Your task to perform on an android device: turn on wifi Image 0: 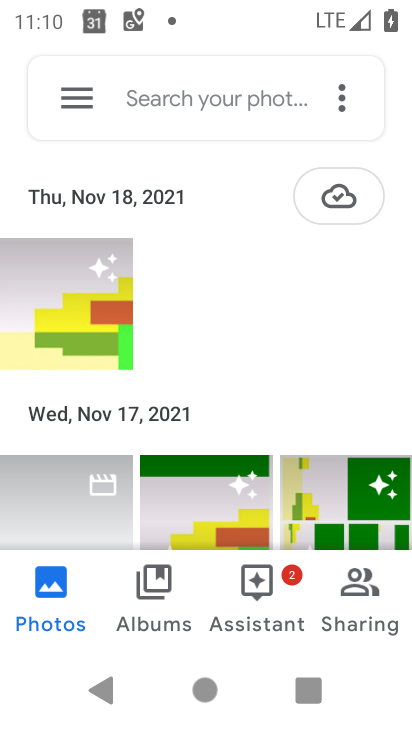
Step 0: press home button
Your task to perform on an android device: turn on wifi Image 1: 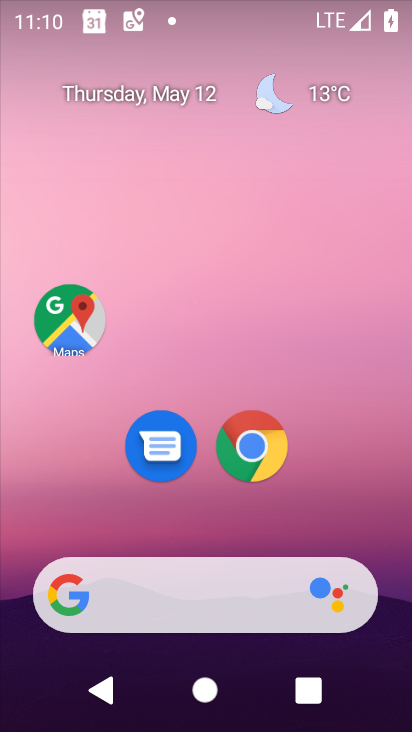
Step 1: drag from (192, 619) to (205, 1)
Your task to perform on an android device: turn on wifi Image 2: 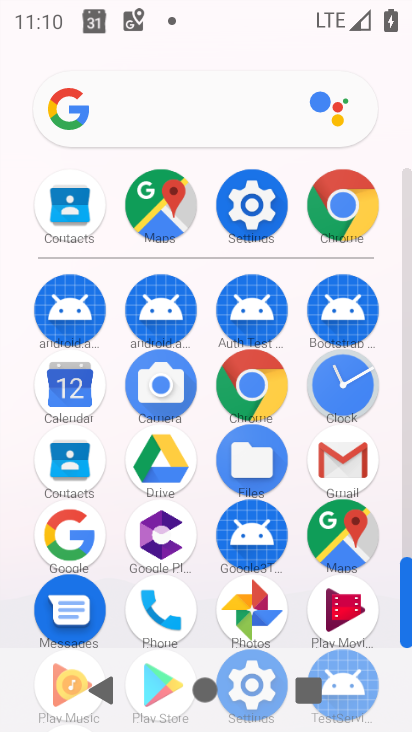
Step 2: click (272, 195)
Your task to perform on an android device: turn on wifi Image 3: 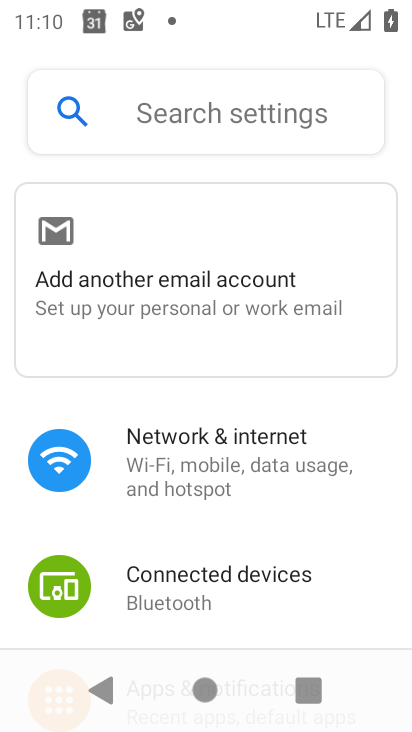
Step 3: click (247, 461)
Your task to perform on an android device: turn on wifi Image 4: 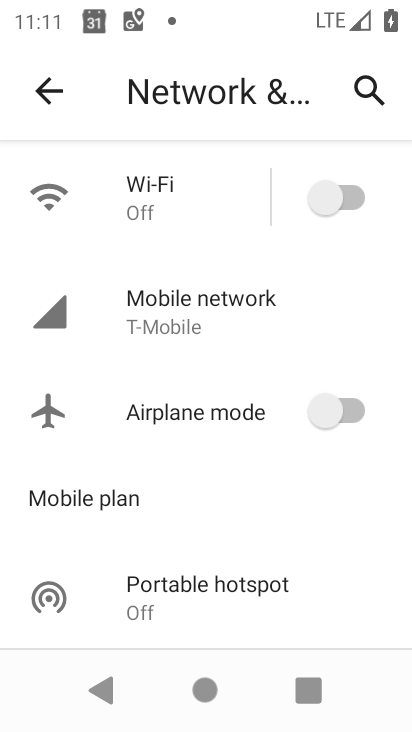
Step 4: click (356, 194)
Your task to perform on an android device: turn on wifi Image 5: 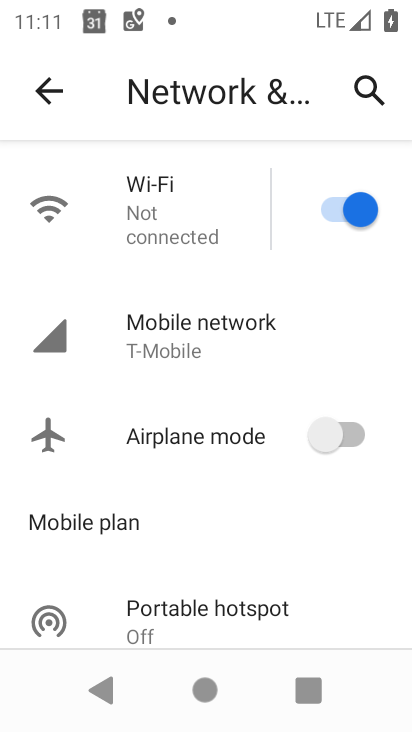
Step 5: task complete